Your task to perform on an android device: turn off airplane mode Image 0: 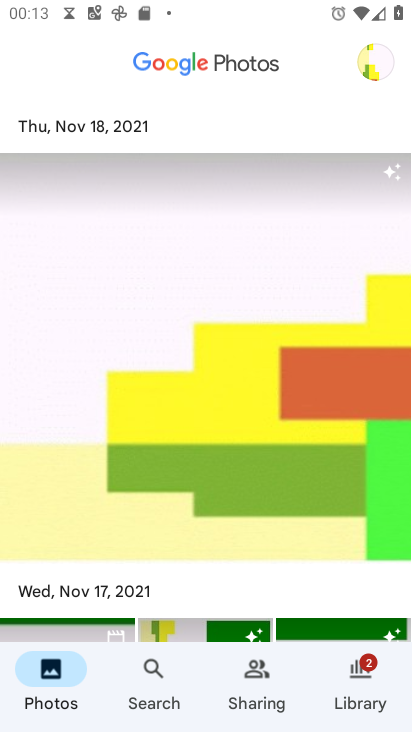
Step 0: press home button
Your task to perform on an android device: turn off airplane mode Image 1: 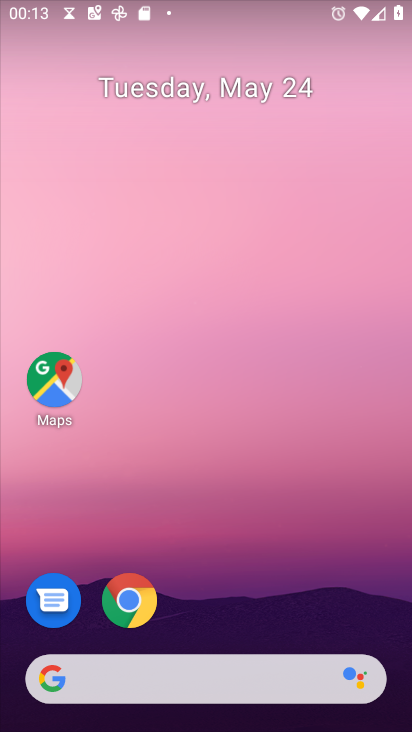
Step 1: drag from (217, 716) to (214, 73)
Your task to perform on an android device: turn off airplane mode Image 2: 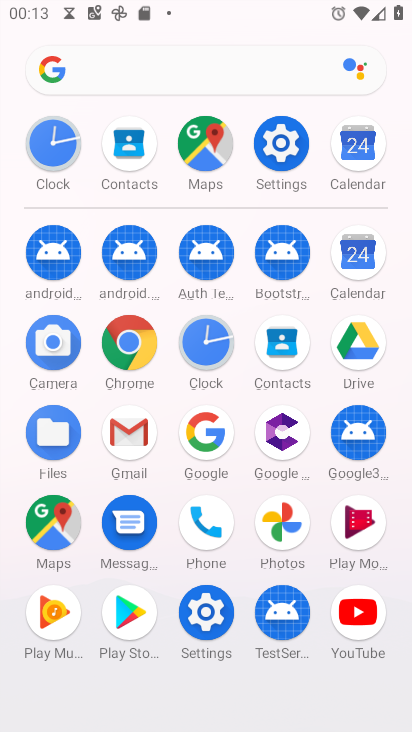
Step 2: click (278, 143)
Your task to perform on an android device: turn off airplane mode Image 3: 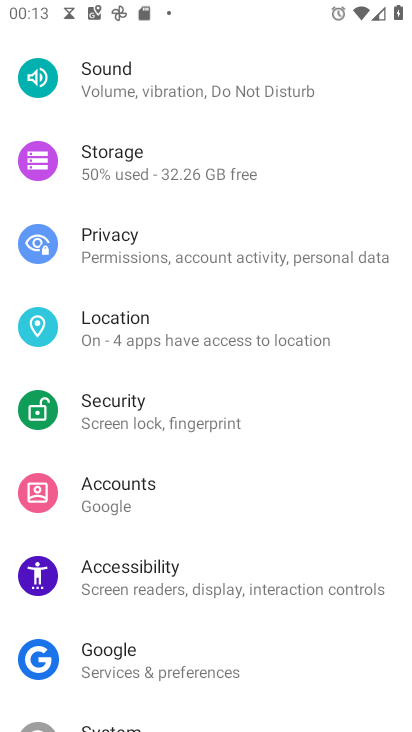
Step 3: drag from (267, 141) to (309, 671)
Your task to perform on an android device: turn off airplane mode Image 4: 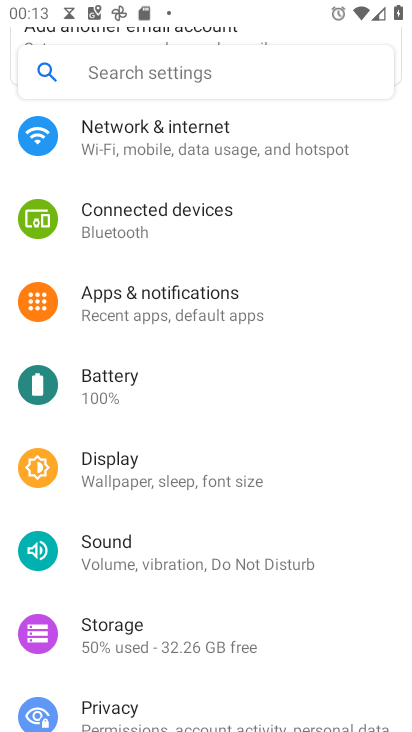
Step 4: drag from (244, 155) to (259, 330)
Your task to perform on an android device: turn off airplane mode Image 5: 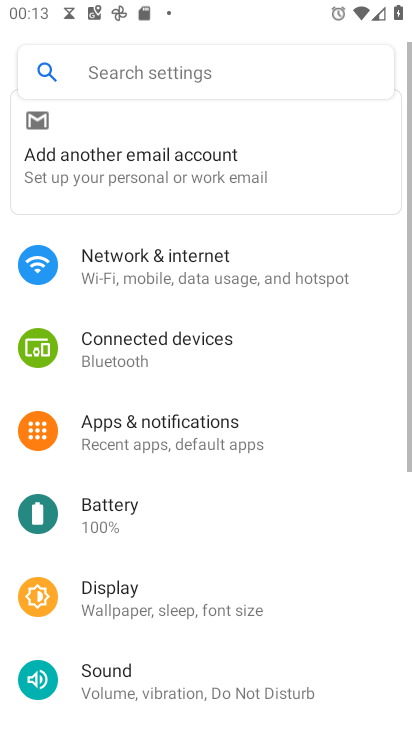
Step 5: click (271, 575)
Your task to perform on an android device: turn off airplane mode Image 6: 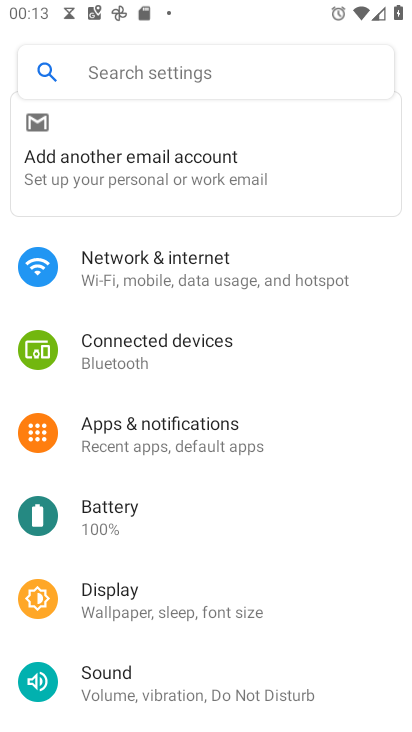
Step 6: click (175, 281)
Your task to perform on an android device: turn off airplane mode Image 7: 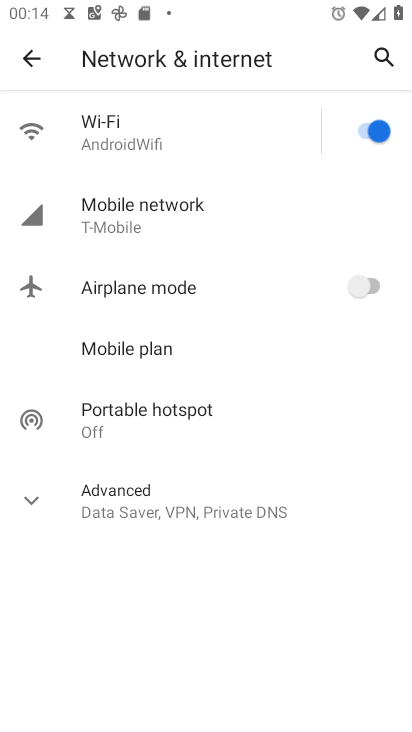
Step 7: task complete